Your task to perform on an android device: set the stopwatch Image 0: 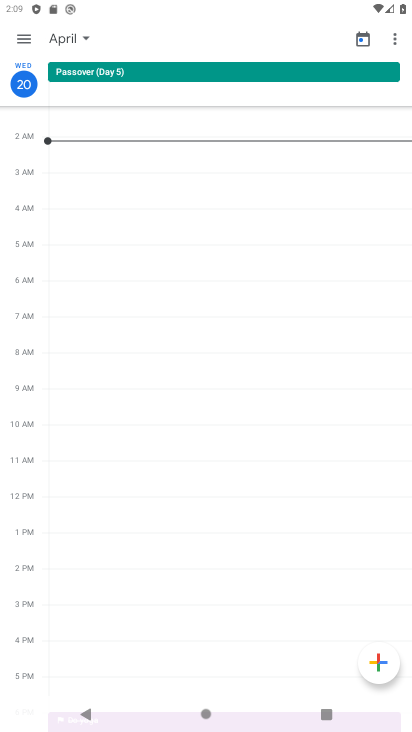
Step 0: click (162, 603)
Your task to perform on an android device: set the stopwatch Image 1: 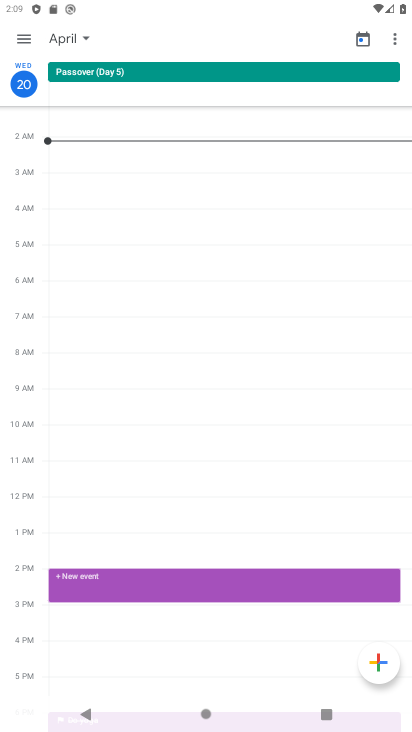
Step 1: press back button
Your task to perform on an android device: set the stopwatch Image 2: 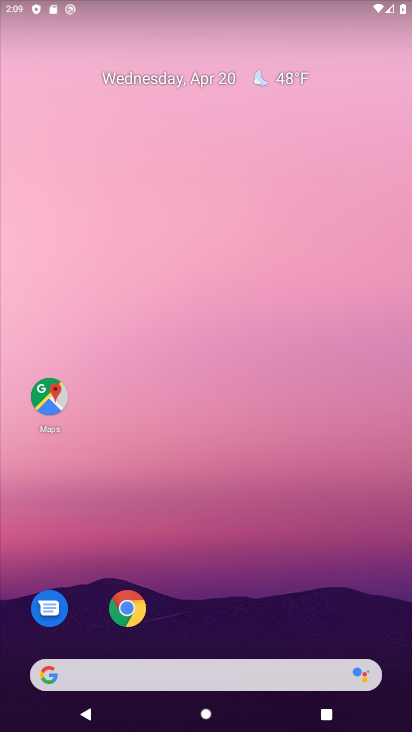
Step 2: click (125, 617)
Your task to perform on an android device: set the stopwatch Image 3: 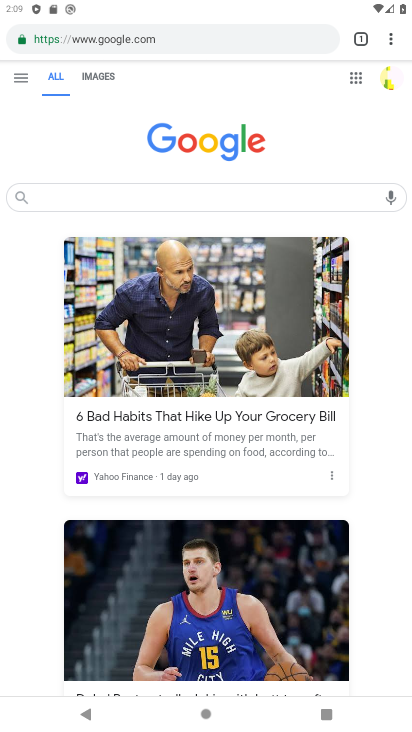
Step 3: press back button
Your task to perform on an android device: set the stopwatch Image 4: 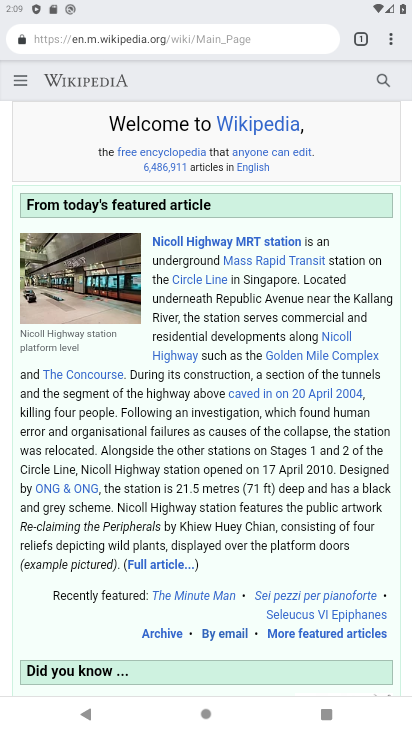
Step 4: press back button
Your task to perform on an android device: set the stopwatch Image 5: 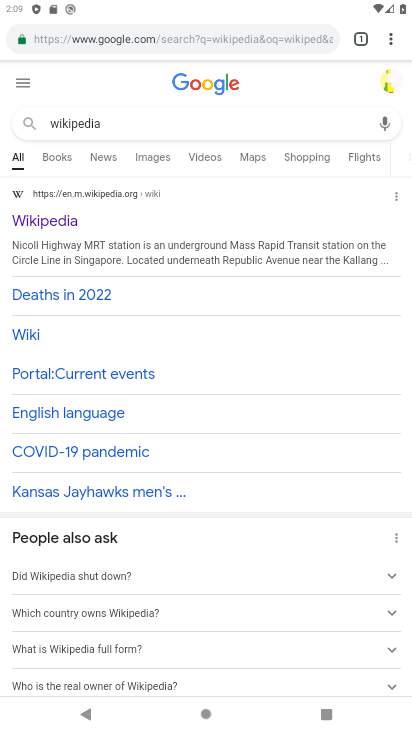
Step 5: press back button
Your task to perform on an android device: set the stopwatch Image 6: 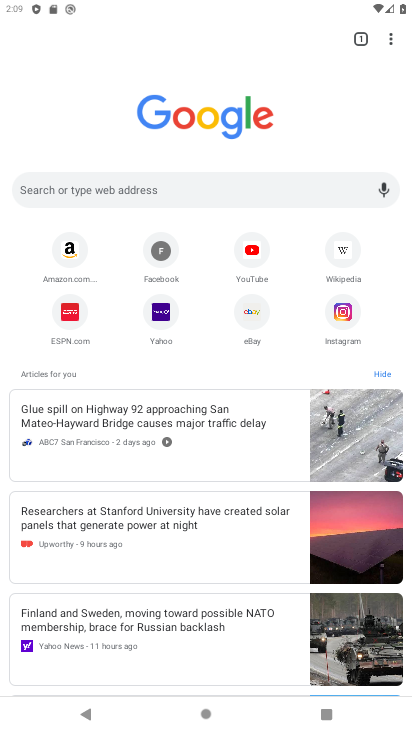
Step 6: press back button
Your task to perform on an android device: set the stopwatch Image 7: 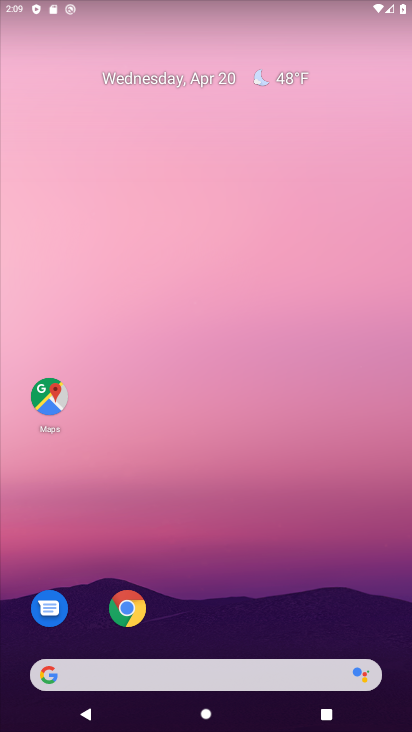
Step 7: drag from (276, 625) to (249, 266)
Your task to perform on an android device: set the stopwatch Image 8: 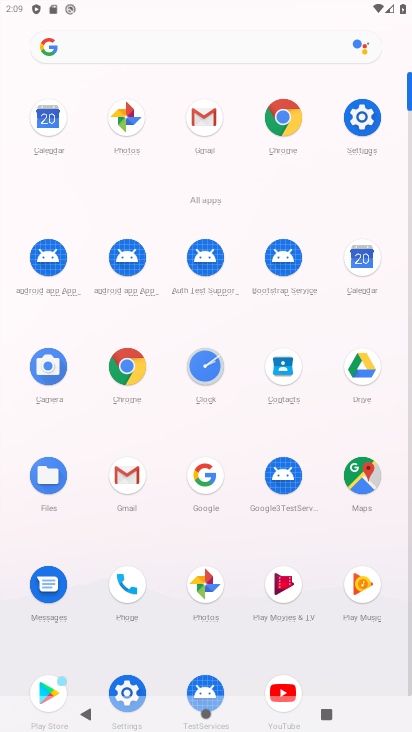
Step 8: click (210, 380)
Your task to perform on an android device: set the stopwatch Image 9: 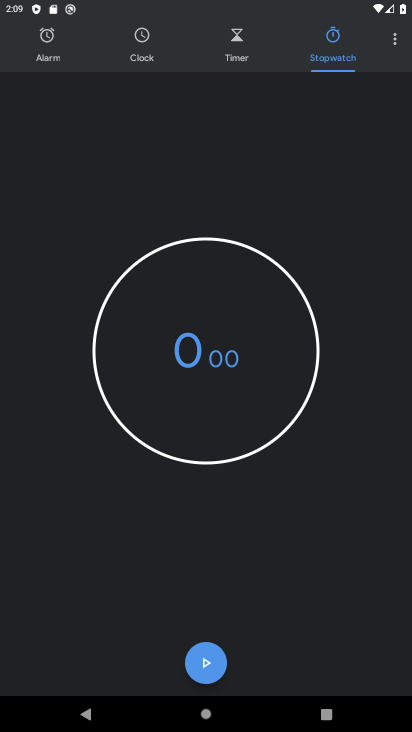
Step 9: task complete